Your task to perform on an android device: Go to ESPN.com Image 0: 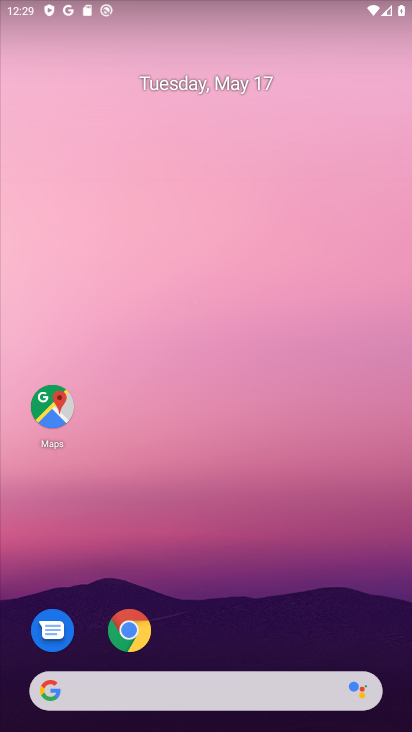
Step 0: click (142, 636)
Your task to perform on an android device: Go to ESPN.com Image 1: 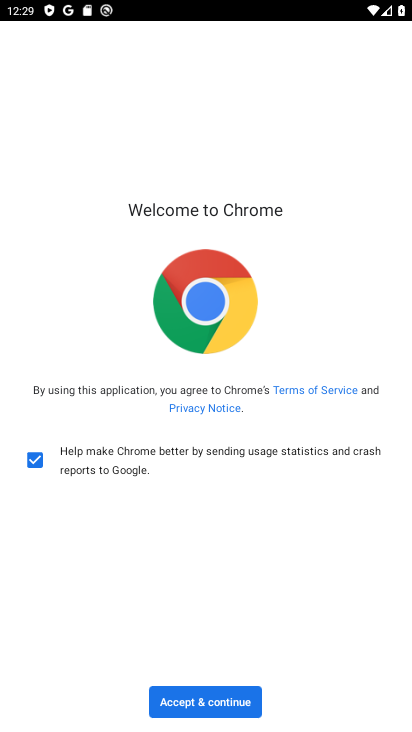
Step 1: click (196, 697)
Your task to perform on an android device: Go to ESPN.com Image 2: 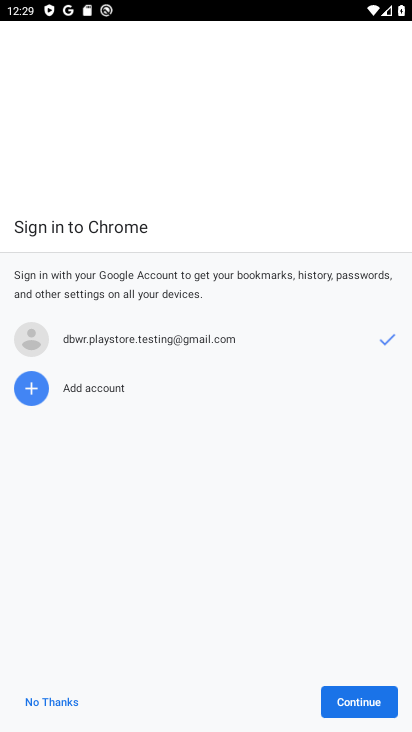
Step 2: click (355, 711)
Your task to perform on an android device: Go to ESPN.com Image 3: 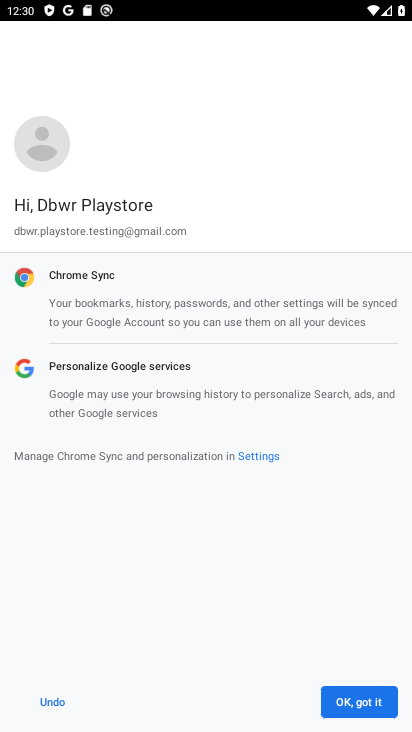
Step 3: click (355, 711)
Your task to perform on an android device: Go to ESPN.com Image 4: 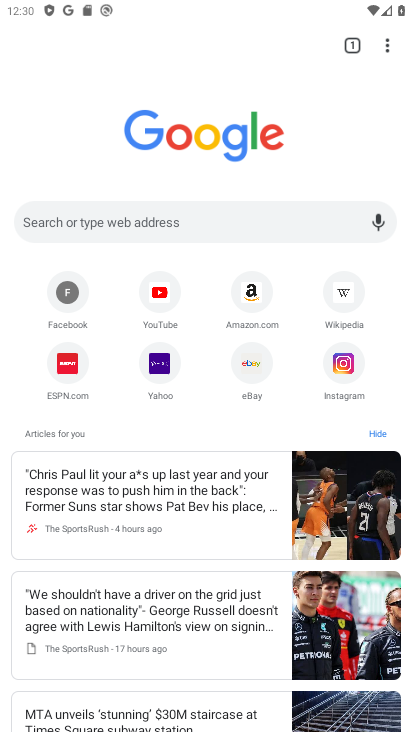
Step 4: click (81, 368)
Your task to perform on an android device: Go to ESPN.com Image 5: 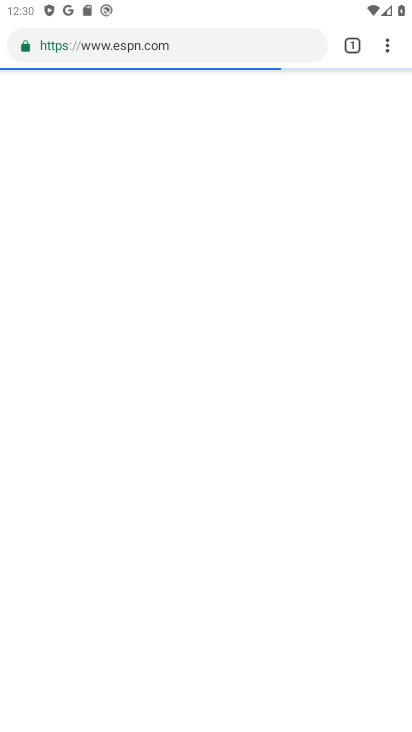
Step 5: task complete